Your task to perform on an android device: turn on data saver in the chrome app Image 0: 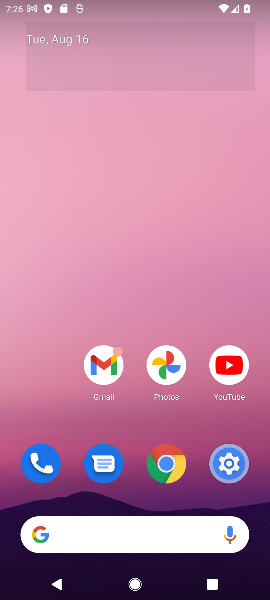
Step 0: press home button
Your task to perform on an android device: turn on data saver in the chrome app Image 1: 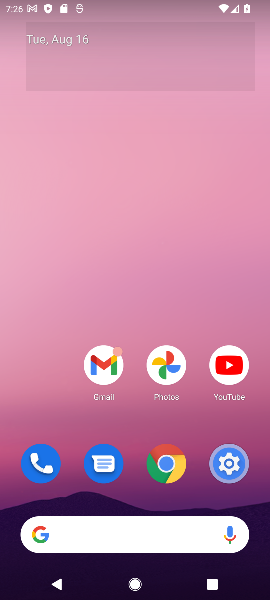
Step 1: drag from (124, 474) to (151, 0)
Your task to perform on an android device: turn on data saver in the chrome app Image 2: 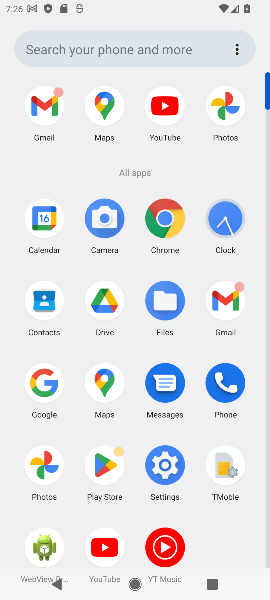
Step 2: click (179, 219)
Your task to perform on an android device: turn on data saver in the chrome app Image 3: 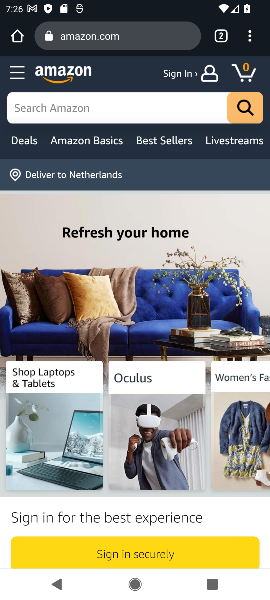
Step 3: click (254, 31)
Your task to perform on an android device: turn on data saver in the chrome app Image 4: 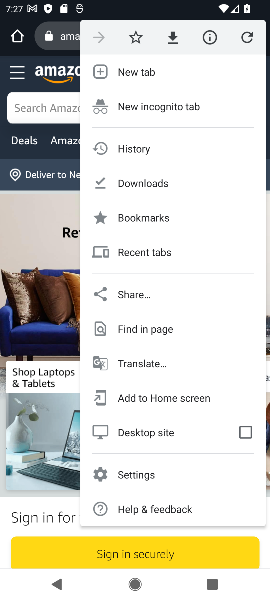
Step 4: click (126, 472)
Your task to perform on an android device: turn on data saver in the chrome app Image 5: 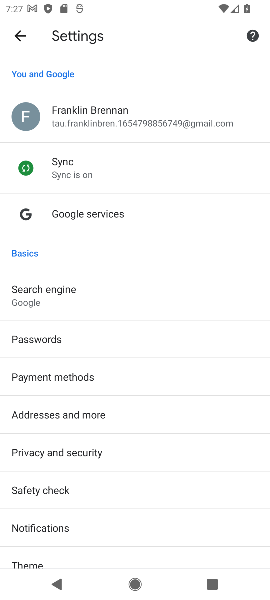
Step 5: drag from (93, 521) to (98, 299)
Your task to perform on an android device: turn on data saver in the chrome app Image 6: 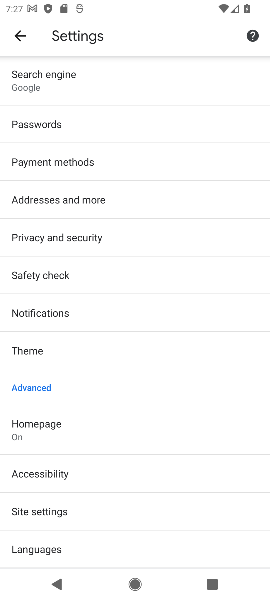
Step 6: drag from (37, 545) to (70, 267)
Your task to perform on an android device: turn on data saver in the chrome app Image 7: 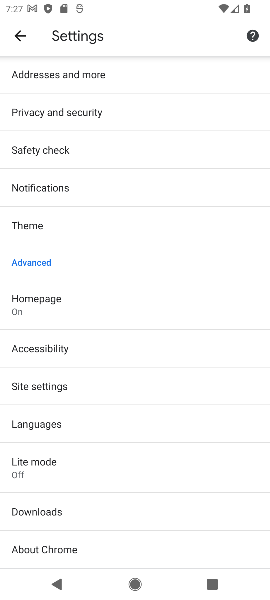
Step 7: click (36, 467)
Your task to perform on an android device: turn on data saver in the chrome app Image 8: 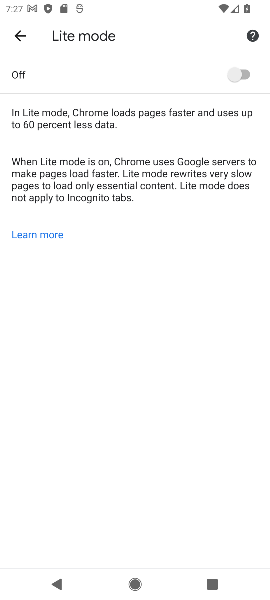
Step 8: click (256, 82)
Your task to perform on an android device: turn on data saver in the chrome app Image 9: 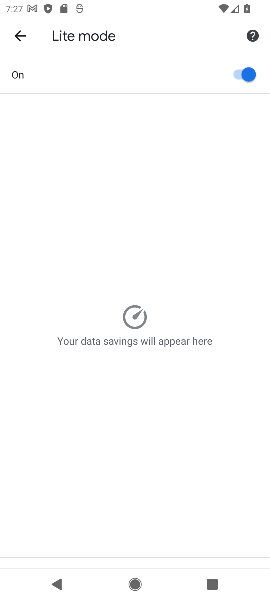
Step 9: task complete